Your task to perform on an android device: delete the emails in spam in the gmail app Image 0: 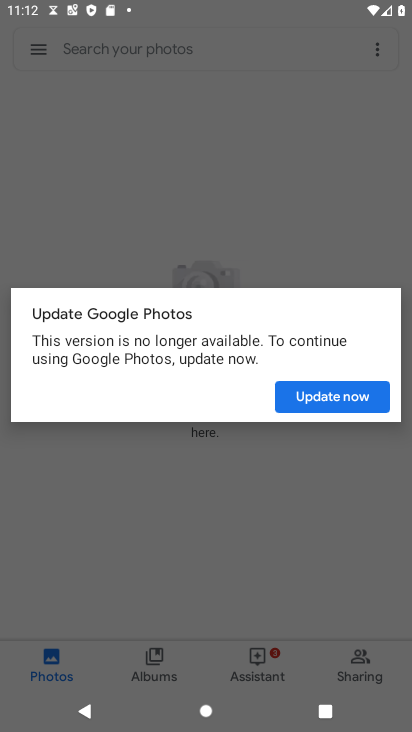
Step 0: press home button
Your task to perform on an android device: delete the emails in spam in the gmail app Image 1: 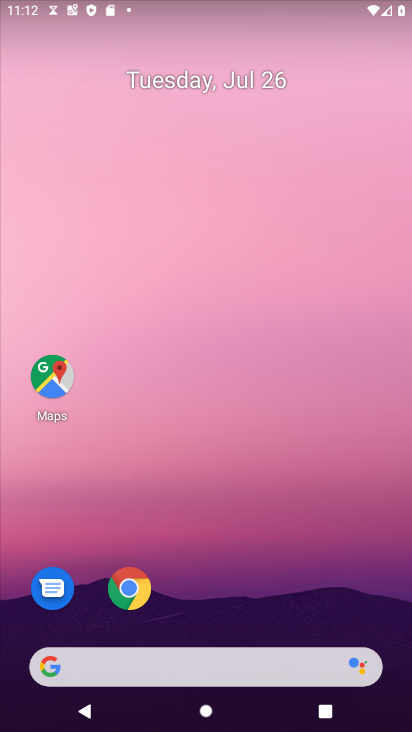
Step 1: drag from (190, 506) to (196, 181)
Your task to perform on an android device: delete the emails in spam in the gmail app Image 2: 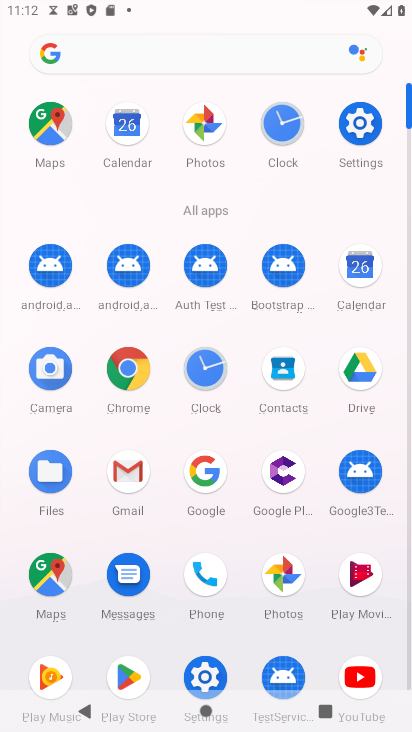
Step 2: click (132, 474)
Your task to perform on an android device: delete the emails in spam in the gmail app Image 3: 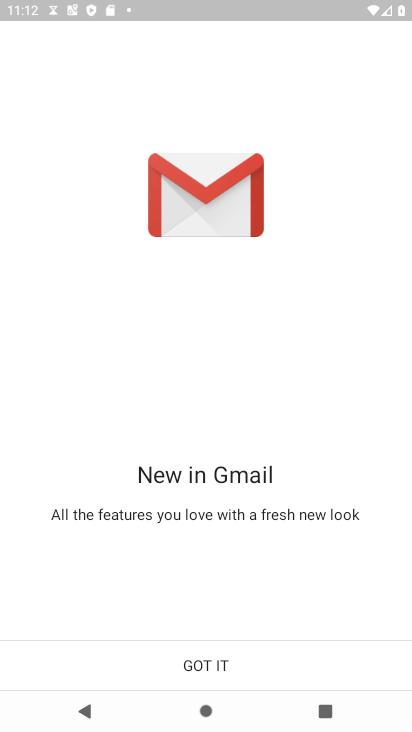
Step 3: click (212, 656)
Your task to perform on an android device: delete the emails in spam in the gmail app Image 4: 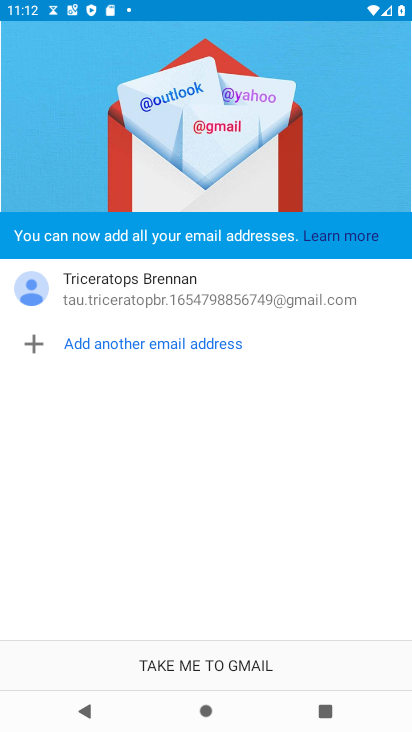
Step 4: click (212, 656)
Your task to perform on an android device: delete the emails in spam in the gmail app Image 5: 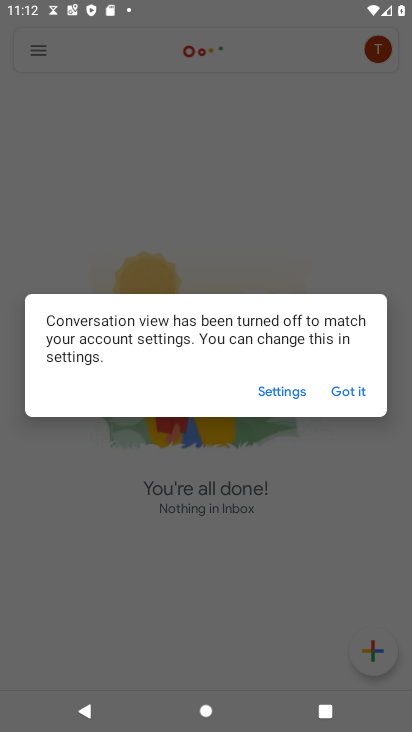
Step 5: click (359, 386)
Your task to perform on an android device: delete the emails in spam in the gmail app Image 6: 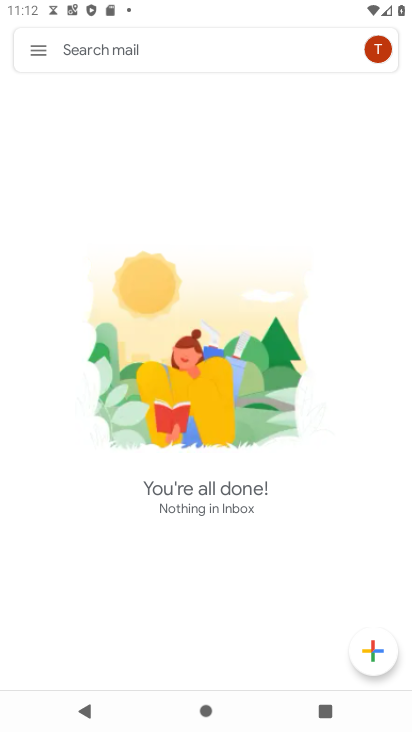
Step 6: click (33, 54)
Your task to perform on an android device: delete the emails in spam in the gmail app Image 7: 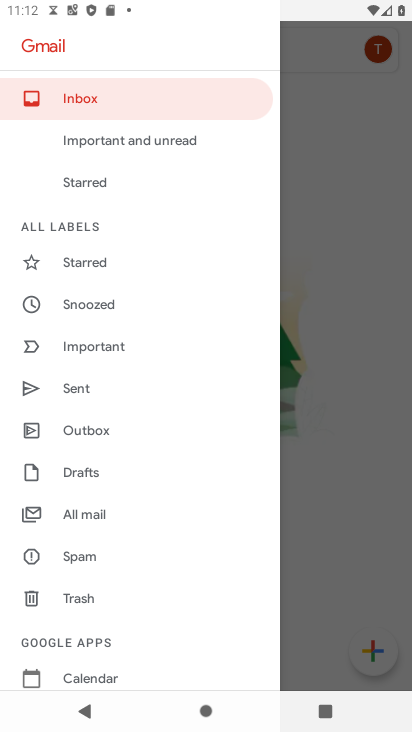
Step 7: click (79, 555)
Your task to perform on an android device: delete the emails in spam in the gmail app Image 8: 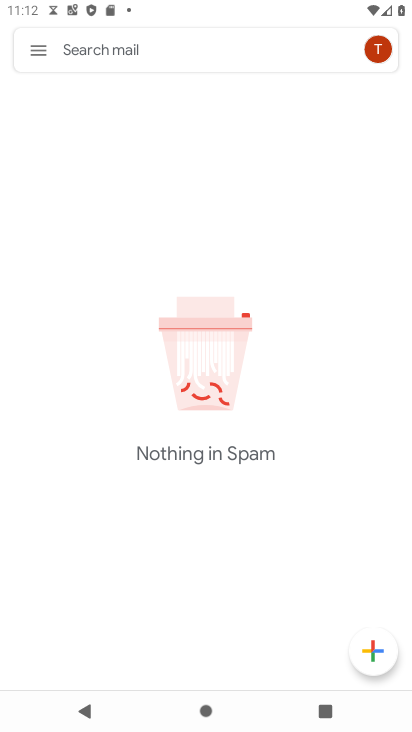
Step 8: task complete